Your task to perform on an android device: Go to CNN.com Image 0: 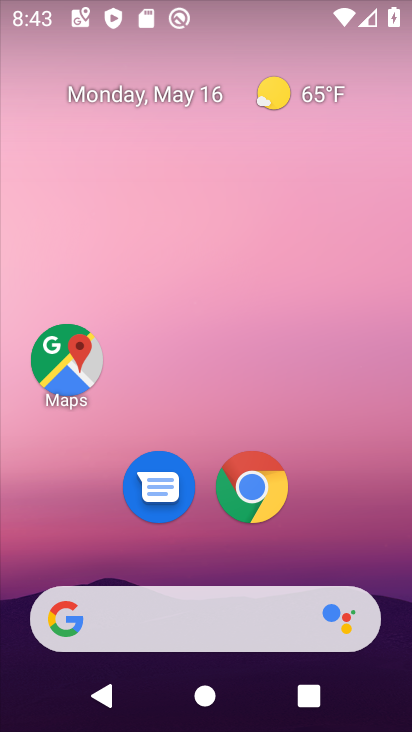
Step 0: drag from (380, 555) to (353, 126)
Your task to perform on an android device: Go to CNN.com Image 1: 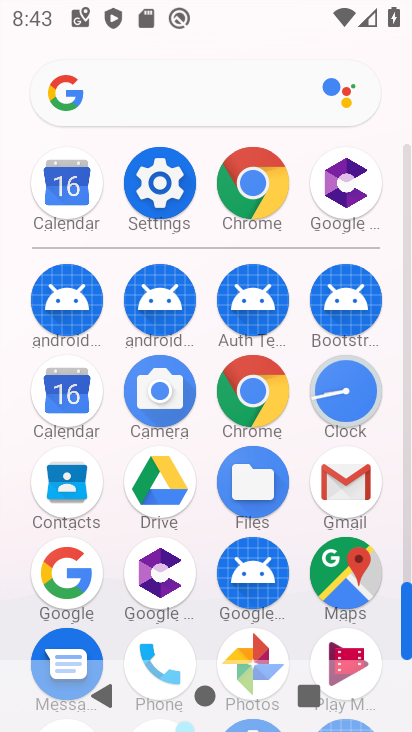
Step 1: click (263, 174)
Your task to perform on an android device: Go to CNN.com Image 2: 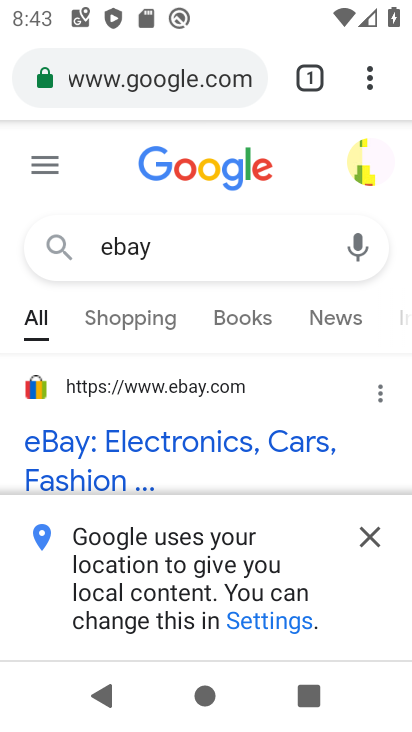
Step 2: click (194, 79)
Your task to perform on an android device: Go to CNN.com Image 3: 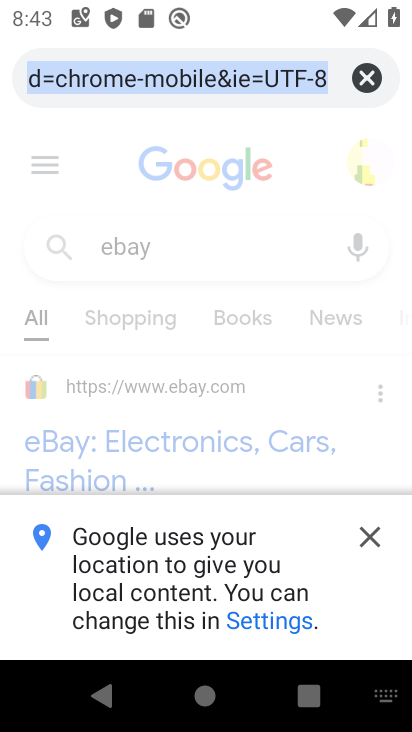
Step 3: click (361, 82)
Your task to perform on an android device: Go to CNN.com Image 4: 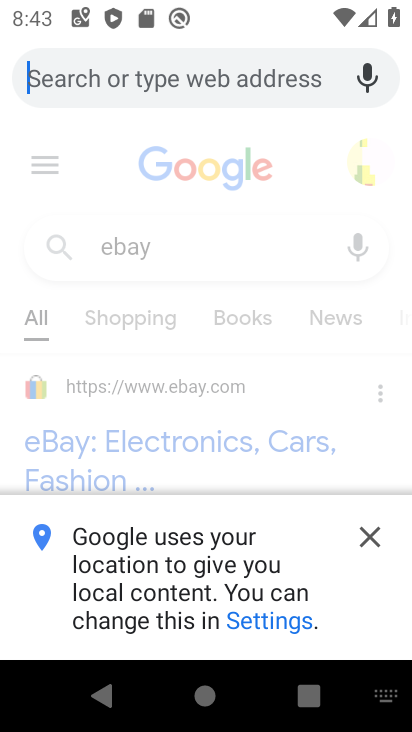
Step 4: type "cnn.com"
Your task to perform on an android device: Go to CNN.com Image 5: 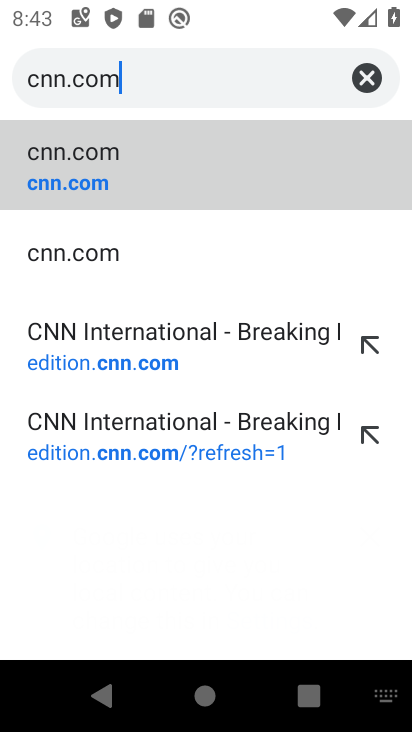
Step 5: click (121, 157)
Your task to perform on an android device: Go to CNN.com Image 6: 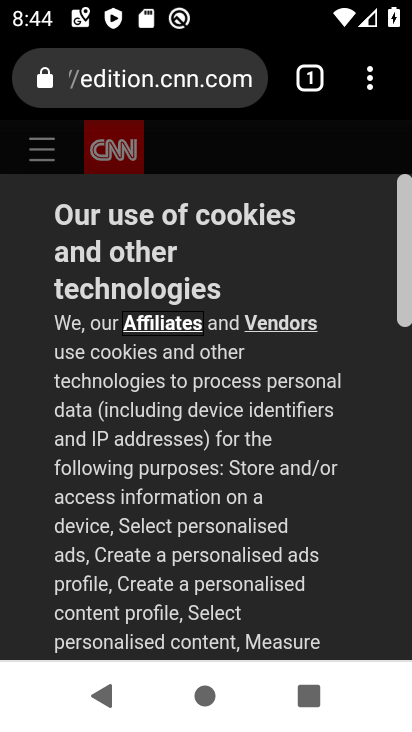
Step 6: task complete